Your task to perform on an android device: Search for vegetarian restaurants on Maps Image 0: 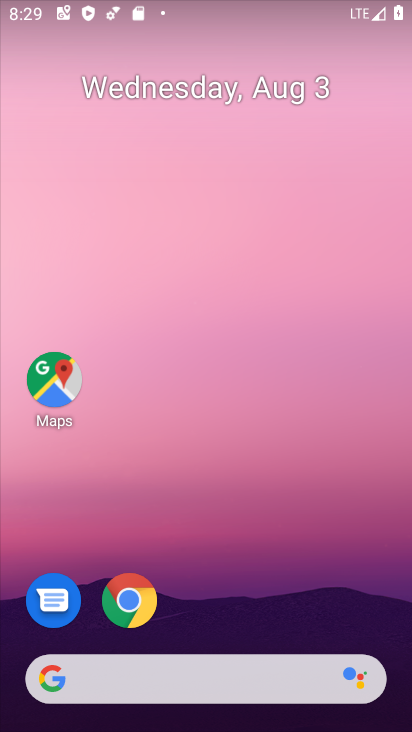
Step 0: click (49, 374)
Your task to perform on an android device: Search for vegetarian restaurants on Maps Image 1: 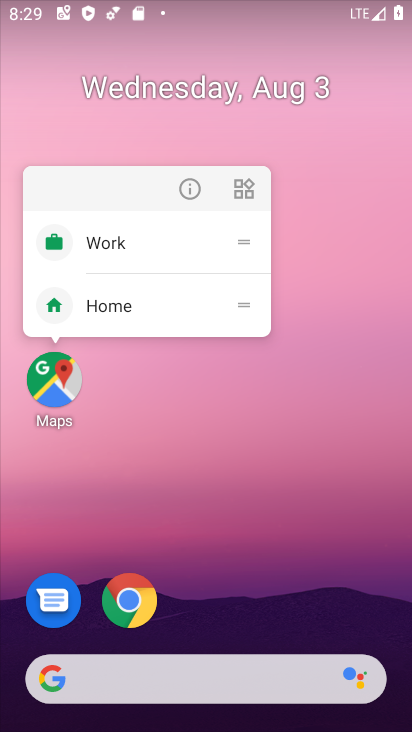
Step 1: click (48, 374)
Your task to perform on an android device: Search for vegetarian restaurants on Maps Image 2: 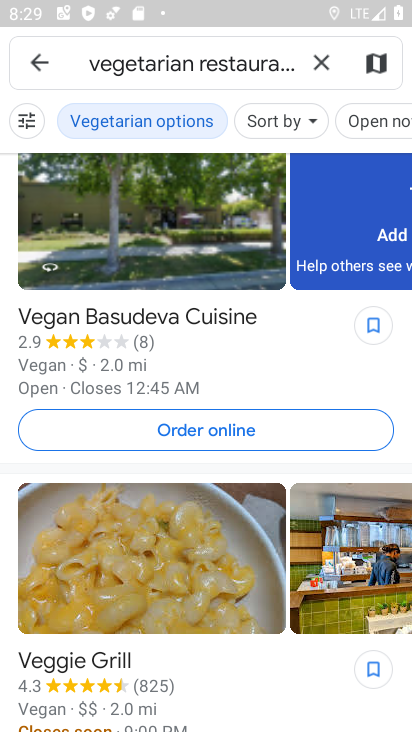
Step 2: click (282, 59)
Your task to perform on an android device: Search for vegetarian restaurants on Maps Image 3: 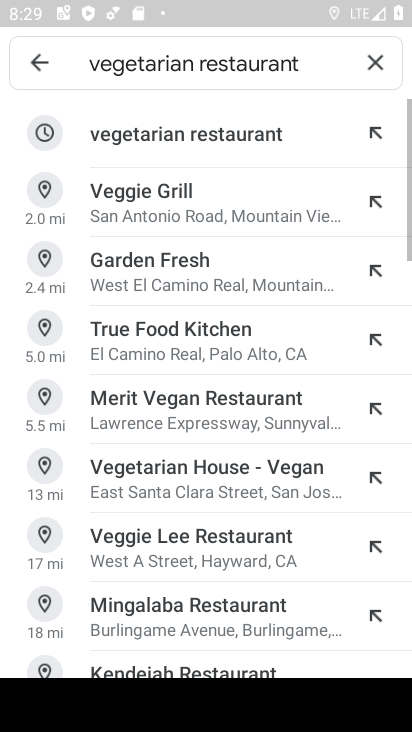
Step 3: type " "
Your task to perform on an android device: Search for vegetarian restaurants on Maps Image 4: 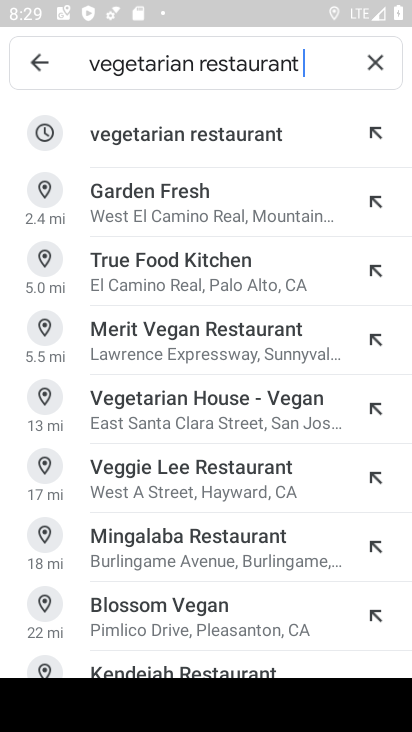
Step 4: click (105, 148)
Your task to perform on an android device: Search for vegetarian restaurants on Maps Image 5: 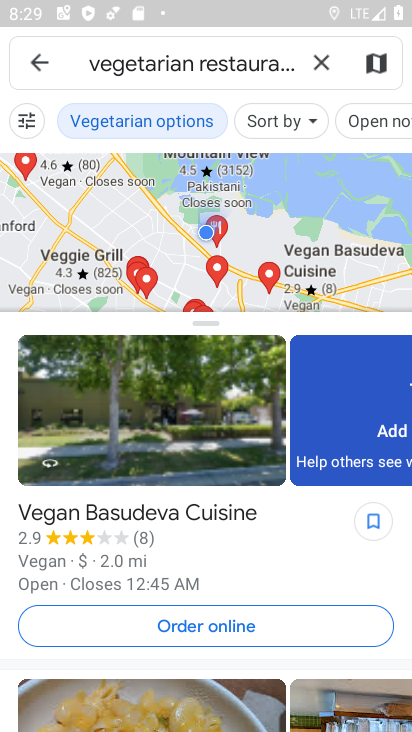
Step 5: task complete